Your task to perform on an android device: Go to calendar. Show me events next week Image 0: 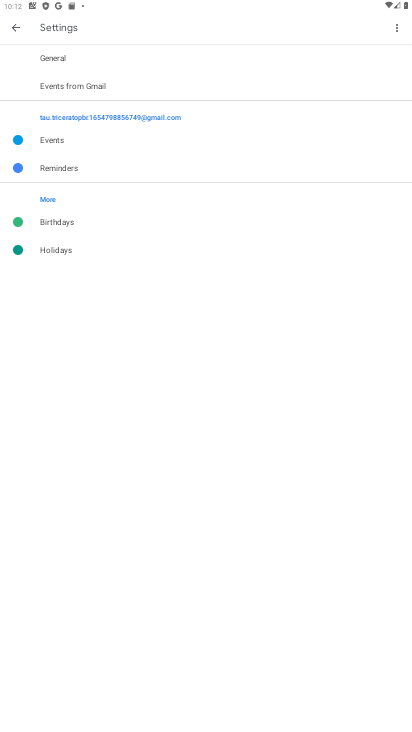
Step 0: press home button
Your task to perform on an android device: Go to calendar. Show me events next week Image 1: 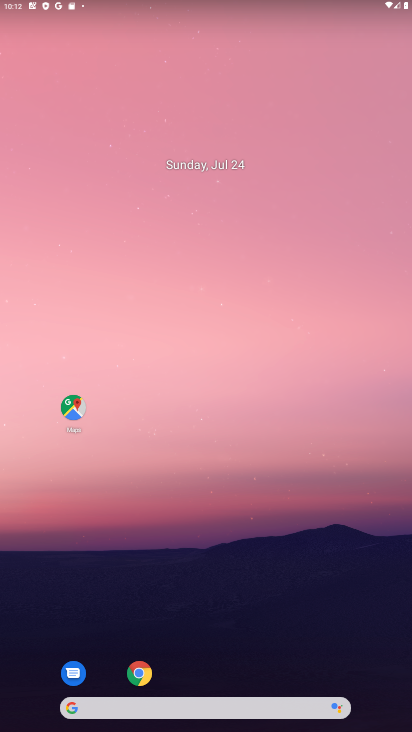
Step 1: drag from (83, 485) to (226, 124)
Your task to perform on an android device: Go to calendar. Show me events next week Image 2: 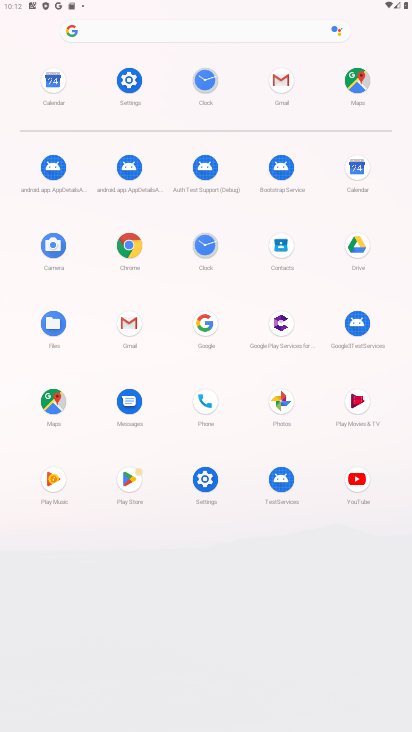
Step 2: click (361, 158)
Your task to perform on an android device: Go to calendar. Show me events next week Image 3: 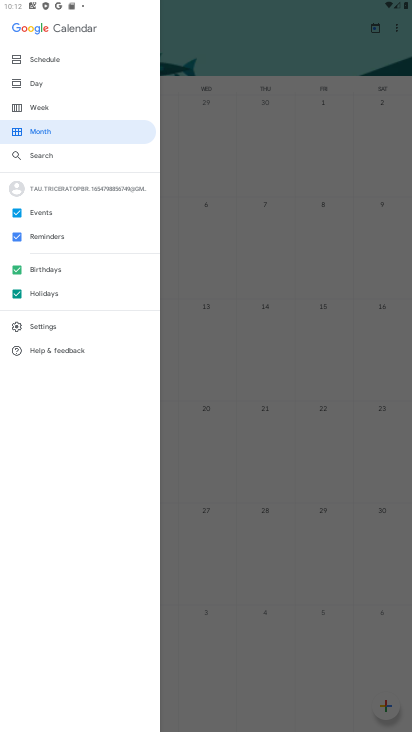
Step 3: click (283, 55)
Your task to perform on an android device: Go to calendar. Show me events next week Image 4: 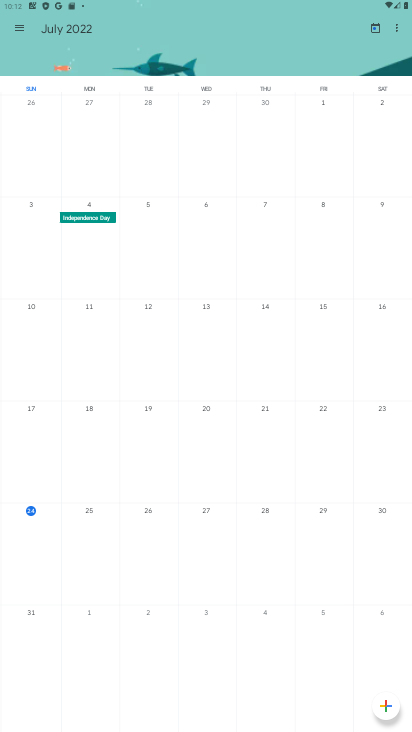
Step 4: task complete